Your task to perform on an android device: empty trash in google photos Image 0: 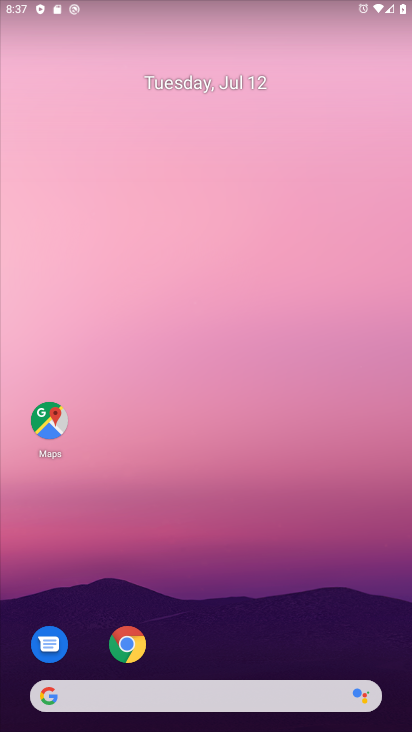
Step 0: drag from (52, 668) to (202, 297)
Your task to perform on an android device: empty trash in google photos Image 1: 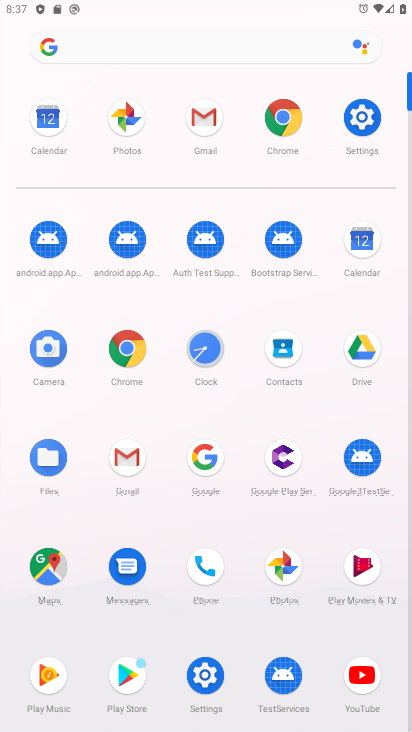
Step 1: click (274, 576)
Your task to perform on an android device: empty trash in google photos Image 2: 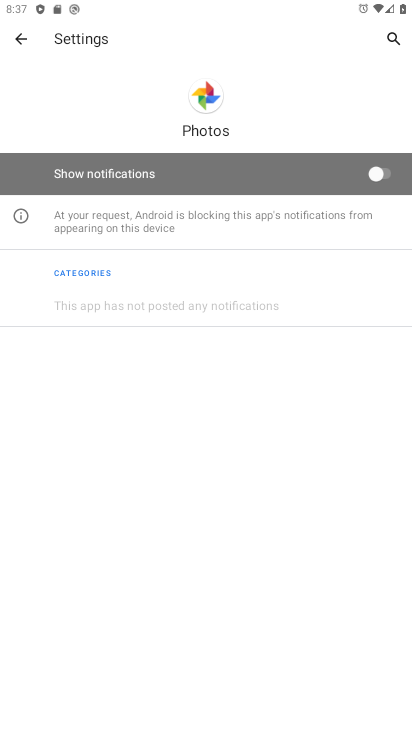
Step 2: click (19, 36)
Your task to perform on an android device: empty trash in google photos Image 3: 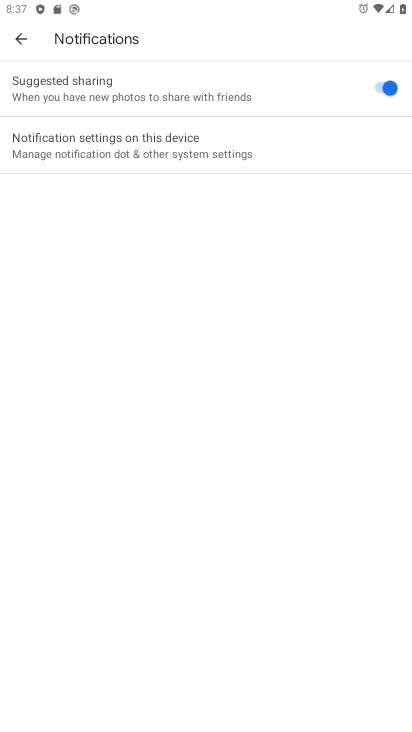
Step 3: click (17, 43)
Your task to perform on an android device: empty trash in google photos Image 4: 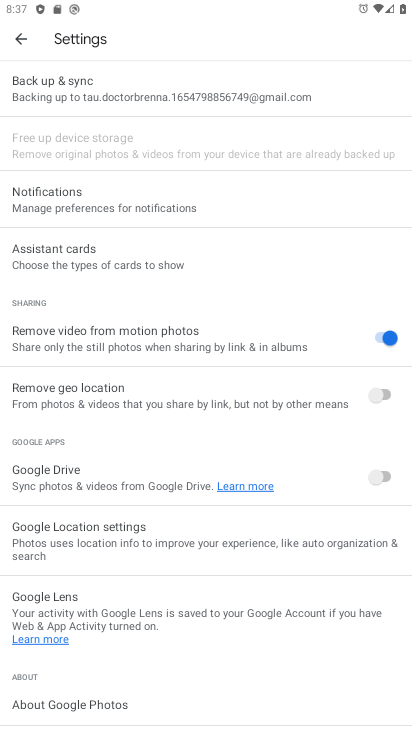
Step 4: click (17, 43)
Your task to perform on an android device: empty trash in google photos Image 5: 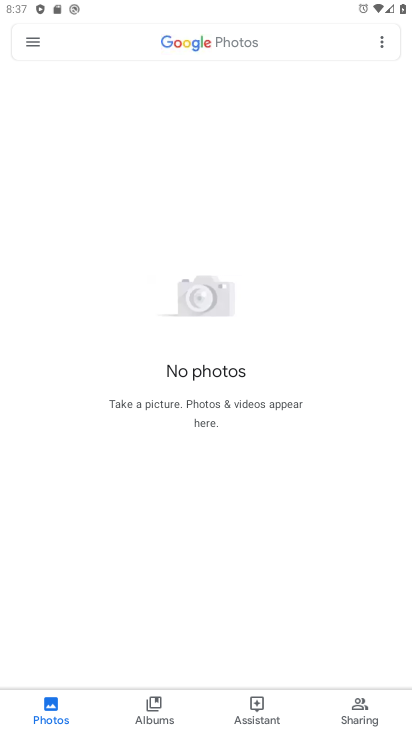
Step 5: click (31, 49)
Your task to perform on an android device: empty trash in google photos Image 6: 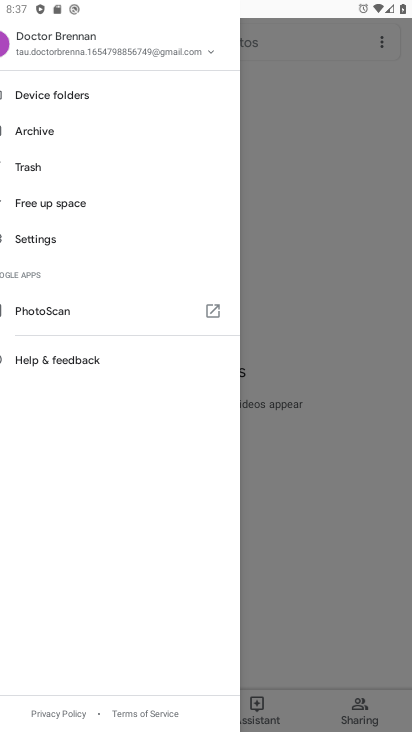
Step 6: click (31, 47)
Your task to perform on an android device: empty trash in google photos Image 7: 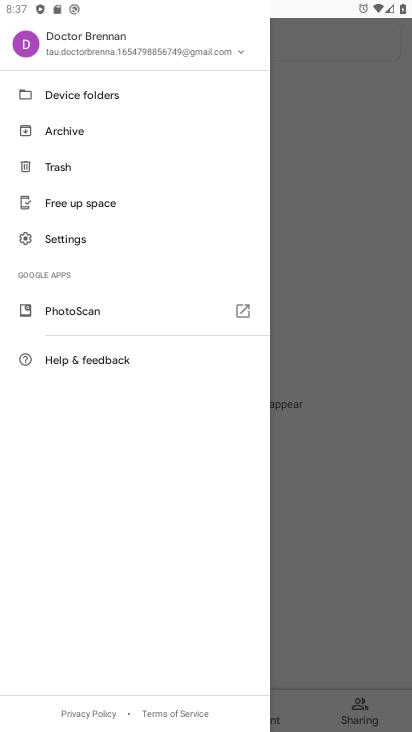
Step 7: click (81, 160)
Your task to perform on an android device: empty trash in google photos Image 8: 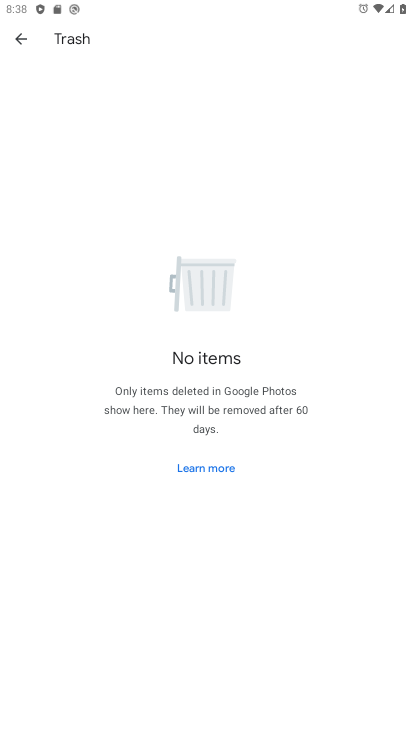
Step 8: task complete